Your task to perform on an android device: open chrome and create a bookmark for the current page Image 0: 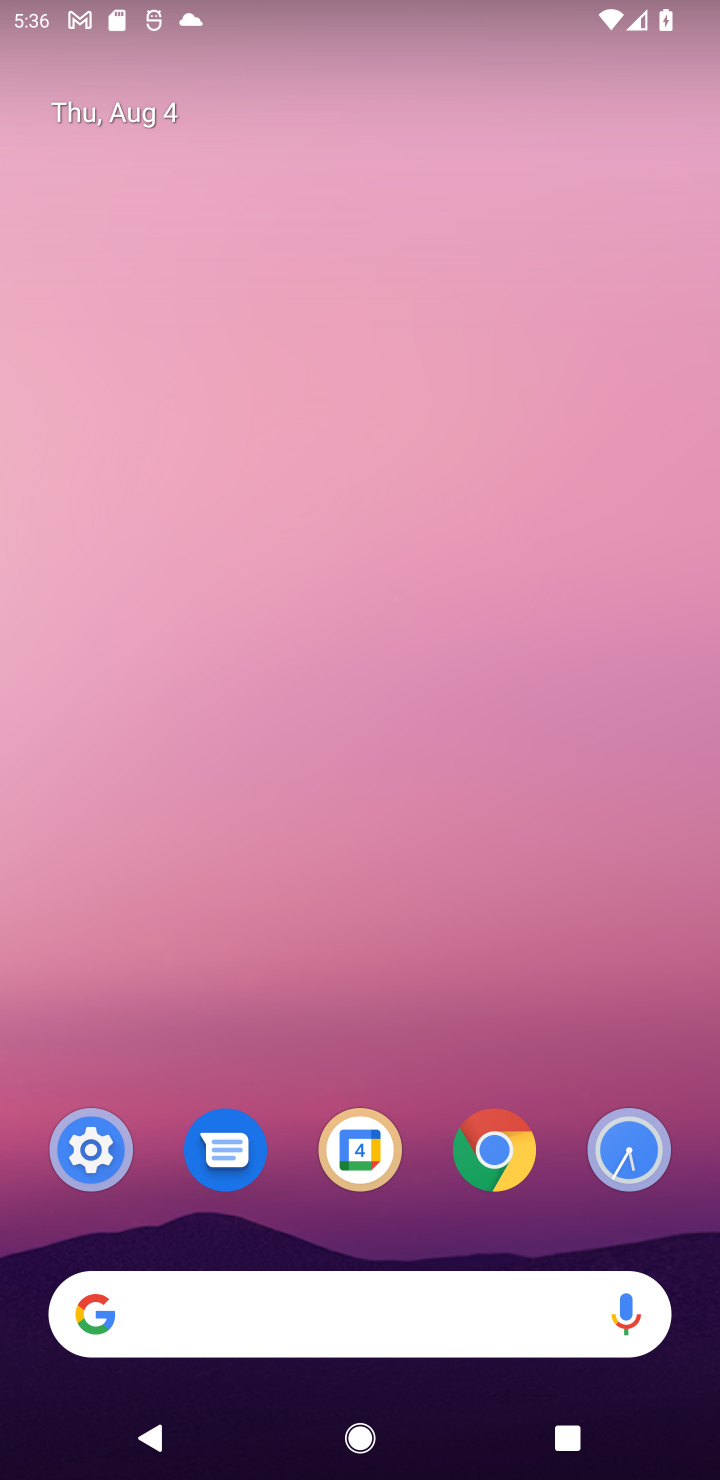
Step 0: click (506, 1150)
Your task to perform on an android device: open chrome and create a bookmark for the current page Image 1: 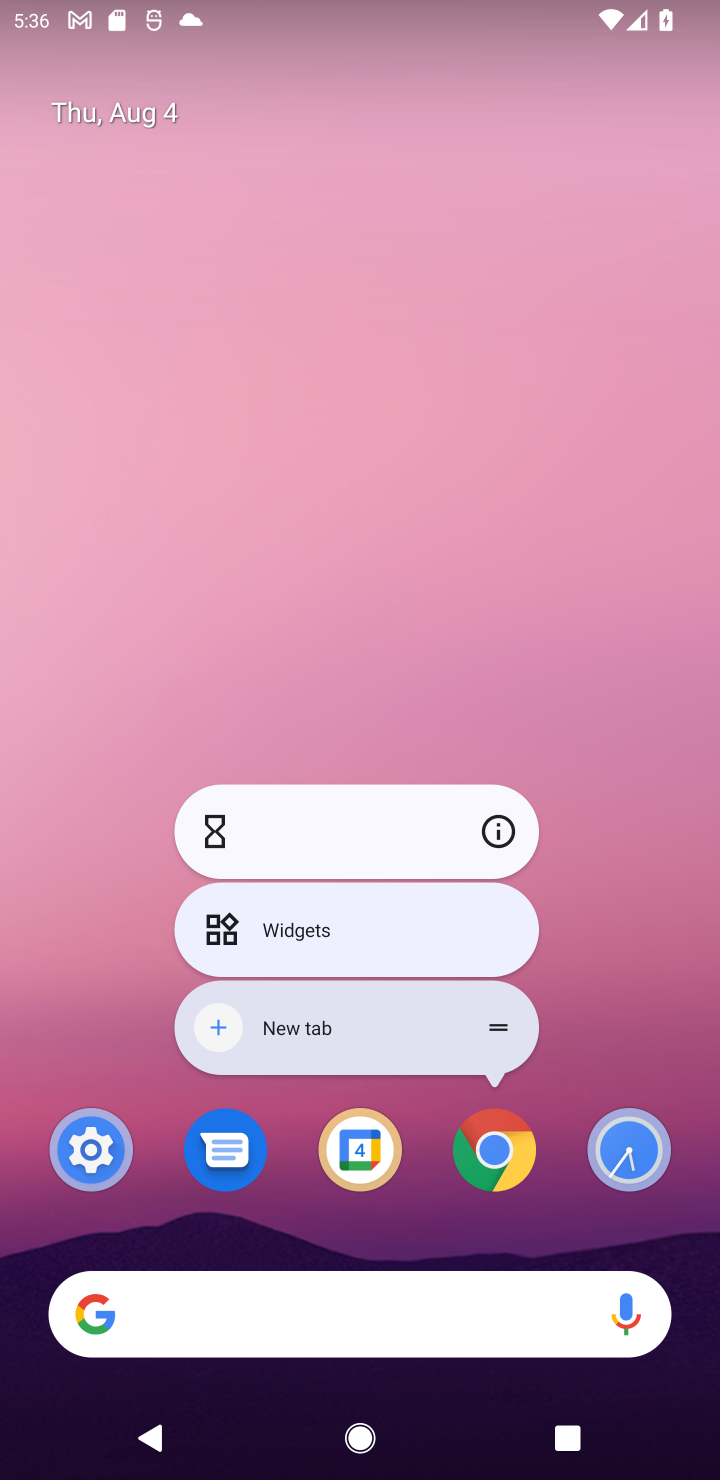
Step 1: click (504, 1151)
Your task to perform on an android device: open chrome and create a bookmark for the current page Image 2: 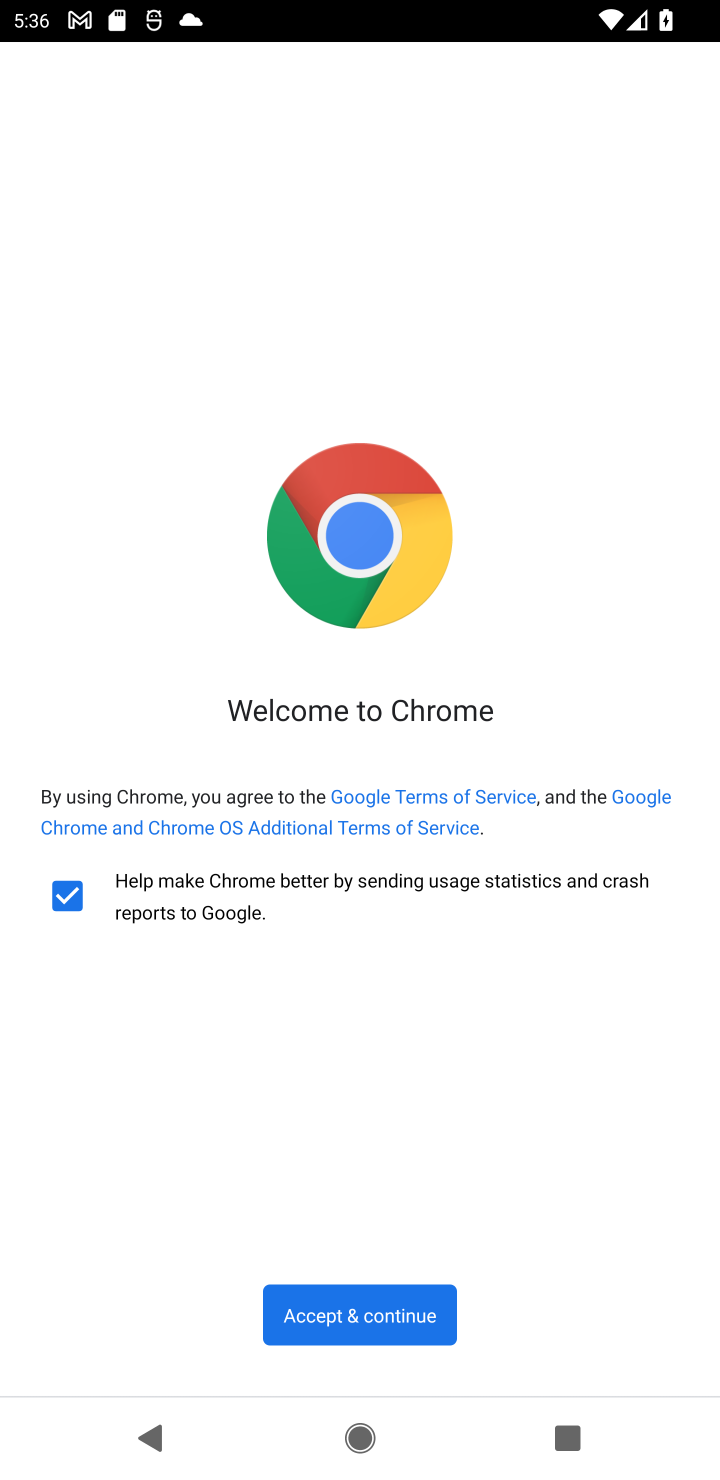
Step 2: click (378, 1326)
Your task to perform on an android device: open chrome and create a bookmark for the current page Image 3: 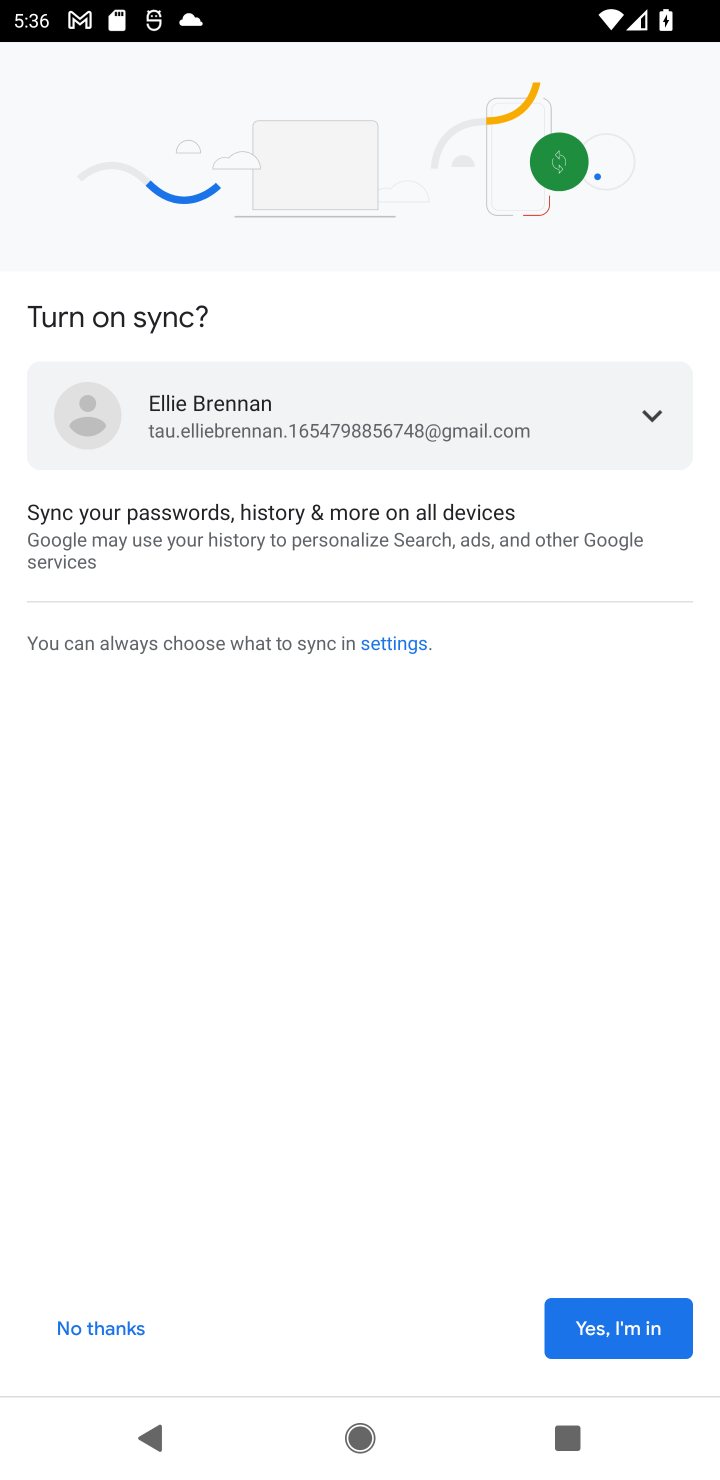
Step 3: click (611, 1317)
Your task to perform on an android device: open chrome and create a bookmark for the current page Image 4: 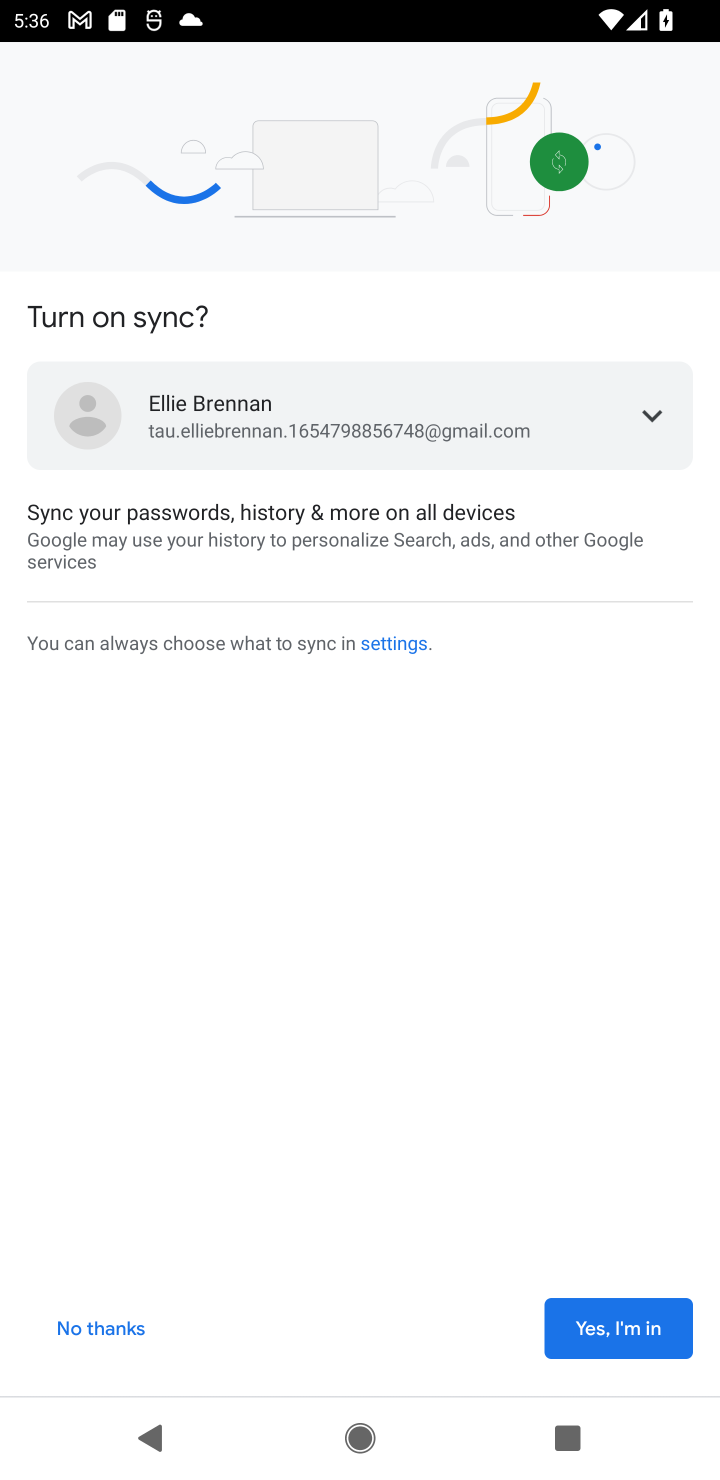
Step 4: click (593, 1322)
Your task to perform on an android device: open chrome and create a bookmark for the current page Image 5: 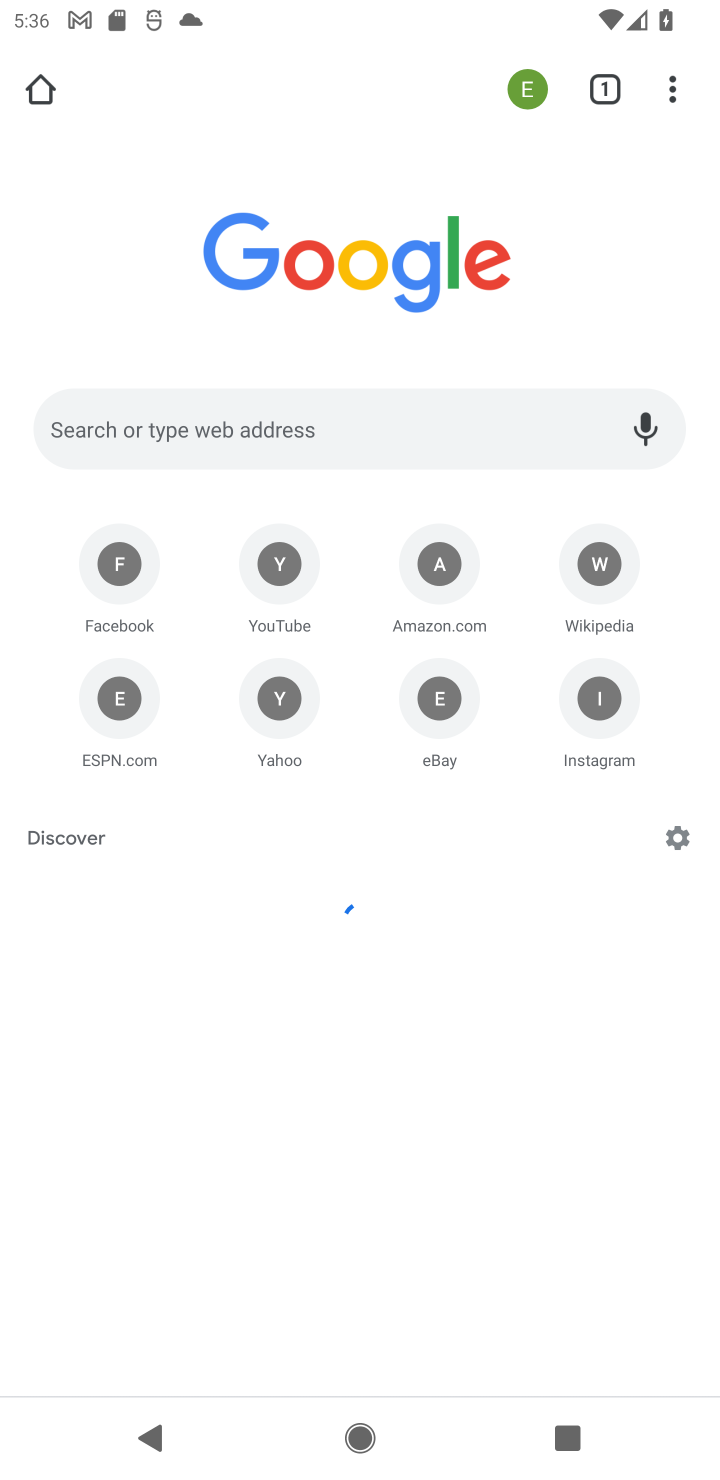
Step 5: click (662, 104)
Your task to perform on an android device: open chrome and create a bookmark for the current page Image 6: 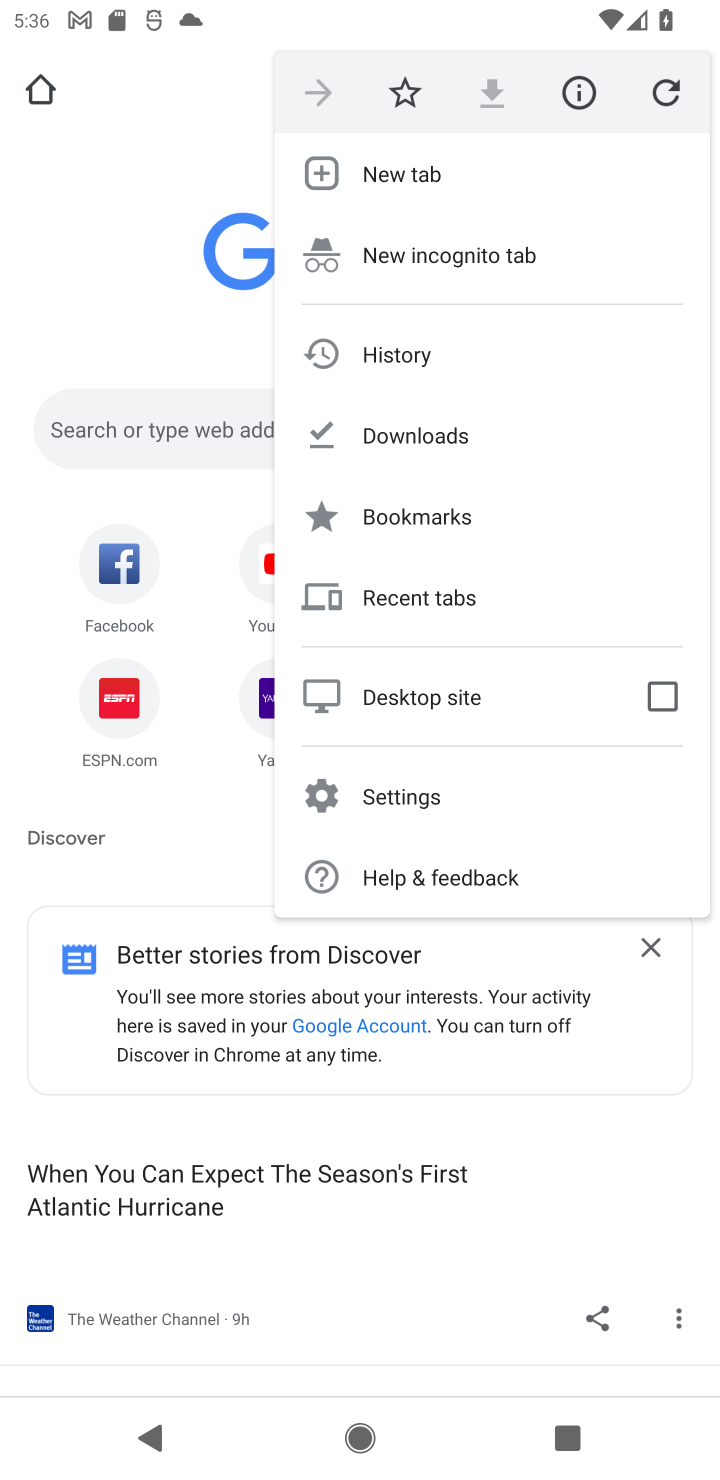
Step 6: click (408, 86)
Your task to perform on an android device: open chrome and create a bookmark for the current page Image 7: 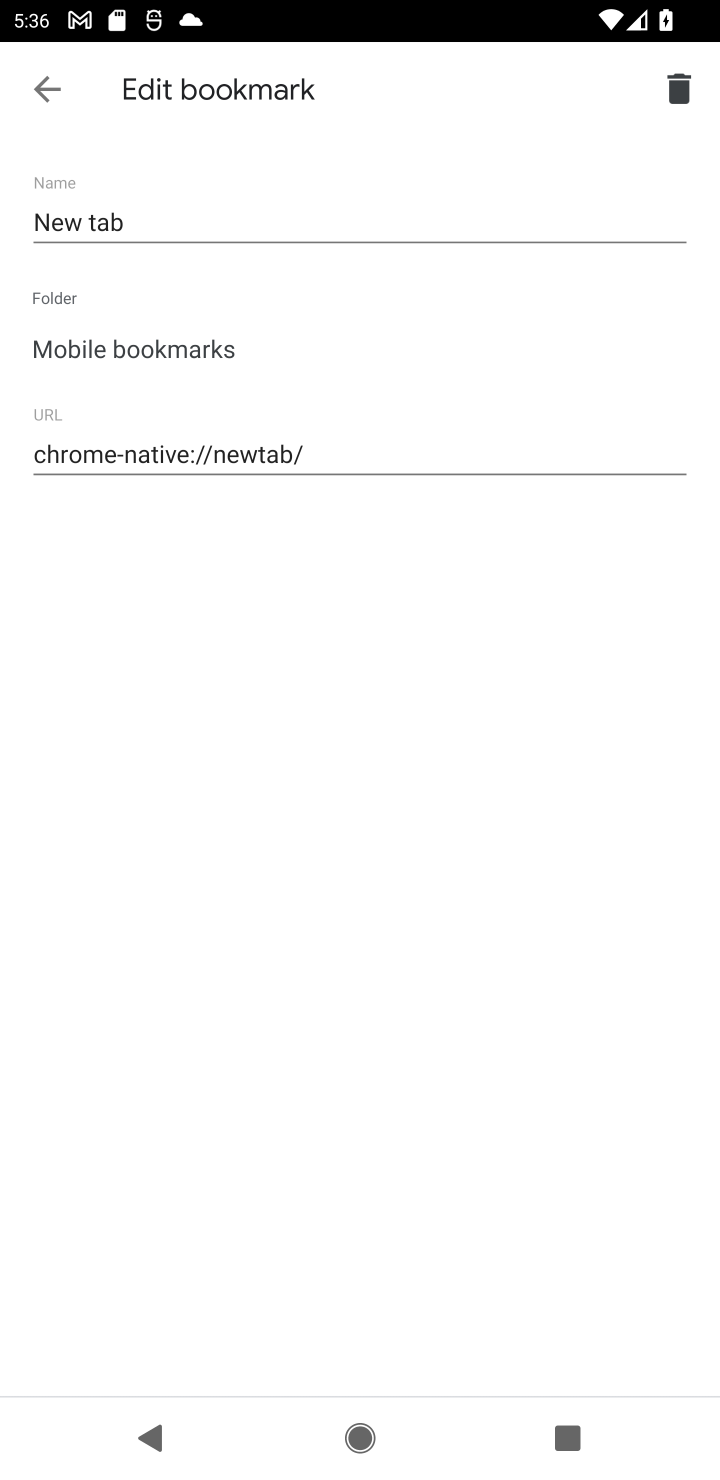
Step 7: click (45, 80)
Your task to perform on an android device: open chrome and create a bookmark for the current page Image 8: 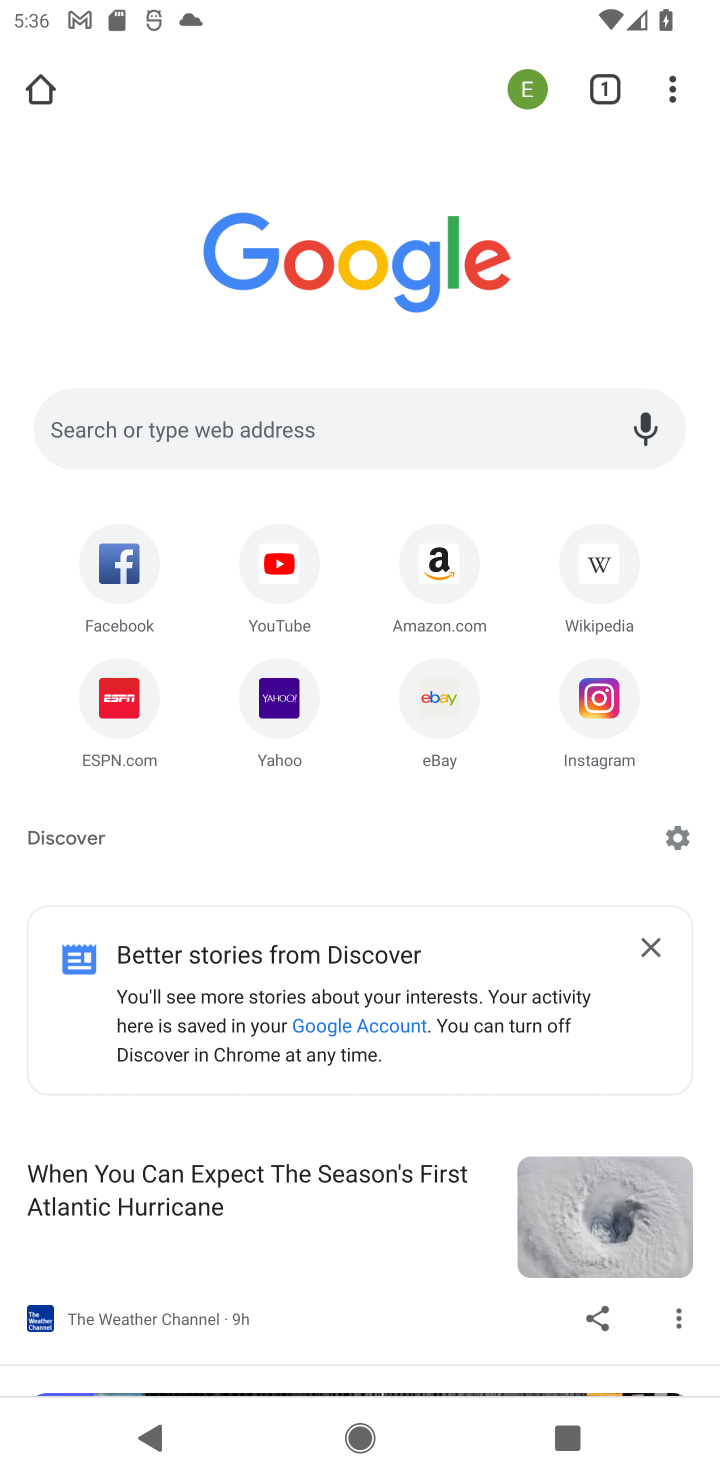
Step 8: task complete